Your task to perform on an android device: open chrome and create a bookmark for the current page Image 0: 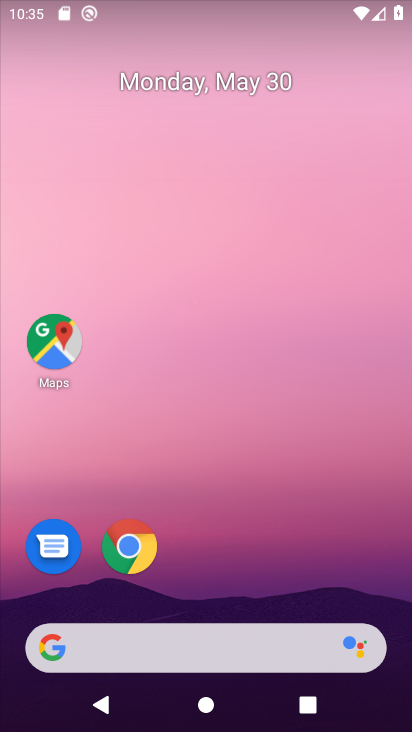
Step 0: click (140, 566)
Your task to perform on an android device: open chrome and create a bookmark for the current page Image 1: 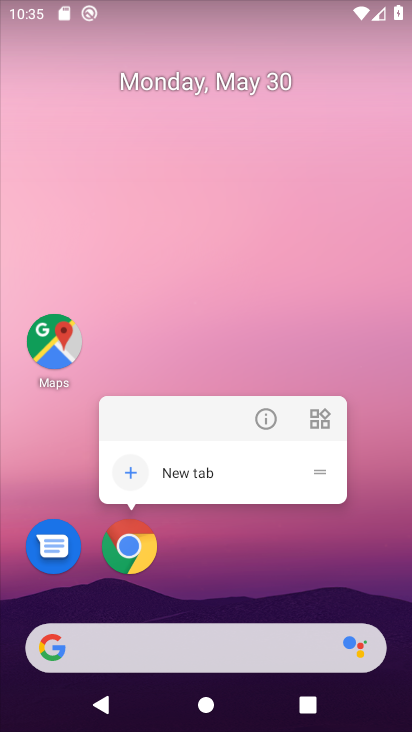
Step 1: click (147, 561)
Your task to perform on an android device: open chrome and create a bookmark for the current page Image 2: 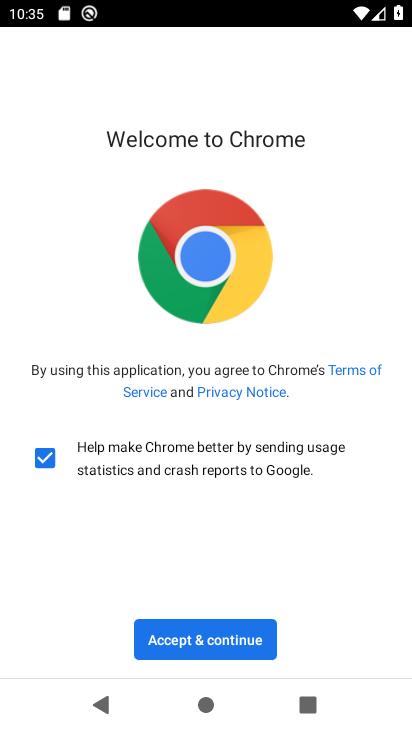
Step 2: click (219, 631)
Your task to perform on an android device: open chrome and create a bookmark for the current page Image 3: 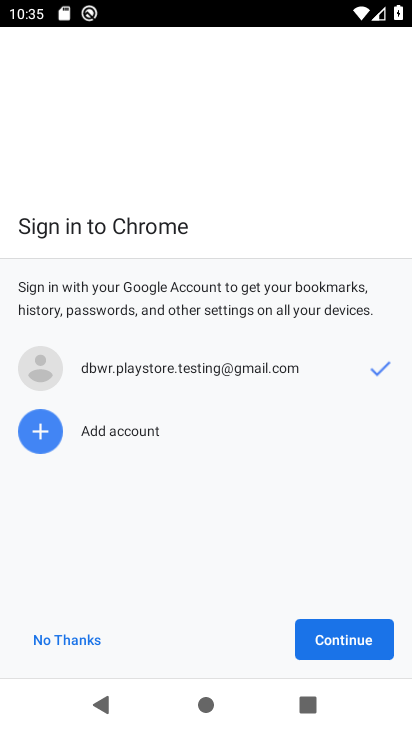
Step 3: click (344, 639)
Your task to perform on an android device: open chrome and create a bookmark for the current page Image 4: 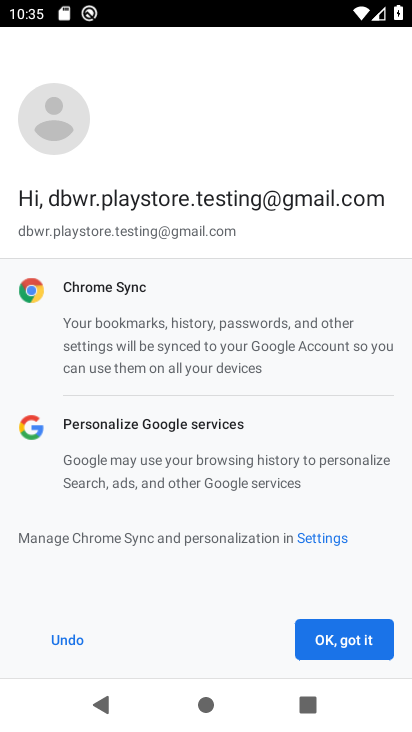
Step 4: click (343, 640)
Your task to perform on an android device: open chrome and create a bookmark for the current page Image 5: 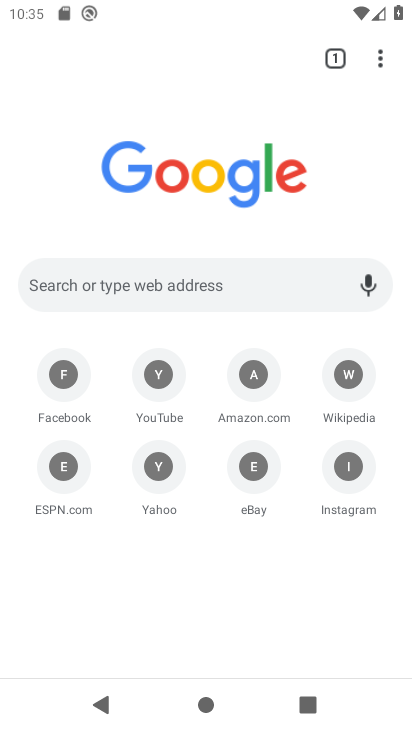
Step 5: click (384, 66)
Your task to perform on an android device: open chrome and create a bookmark for the current page Image 6: 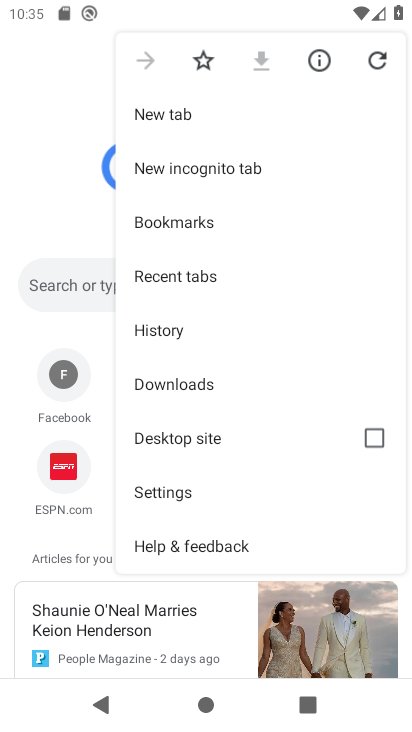
Step 6: click (217, 61)
Your task to perform on an android device: open chrome and create a bookmark for the current page Image 7: 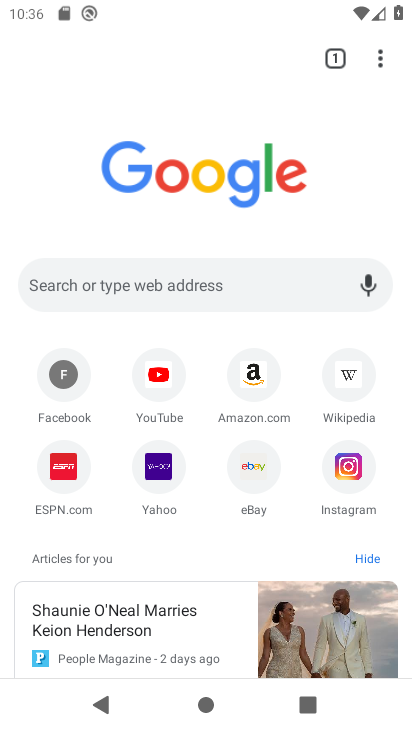
Step 7: task complete